Your task to perform on an android device: Go to calendar. Show me events next week Image 0: 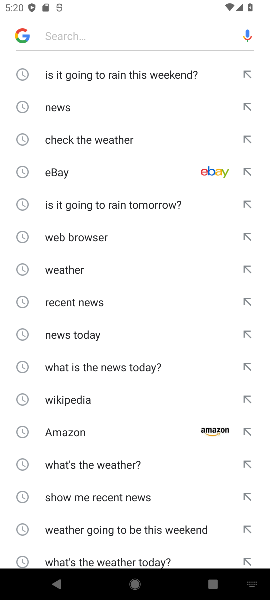
Step 0: press home button
Your task to perform on an android device: Go to calendar. Show me events next week Image 1: 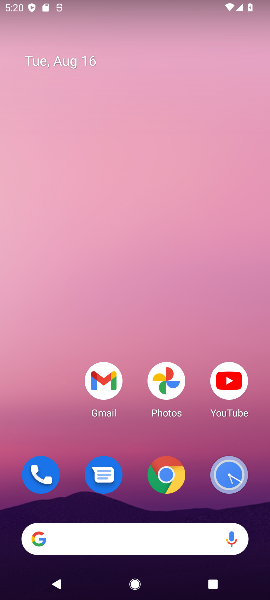
Step 1: drag from (262, 536) to (86, 57)
Your task to perform on an android device: Go to calendar. Show me events next week Image 2: 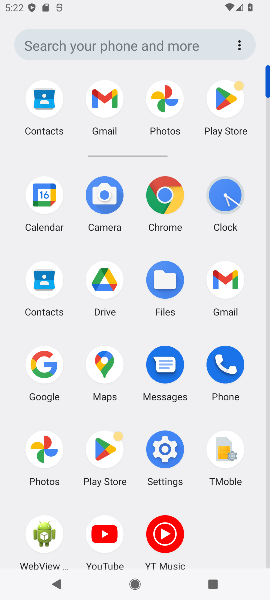
Step 2: click (40, 198)
Your task to perform on an android device: Go to calendar. Show me events next week Image 3: 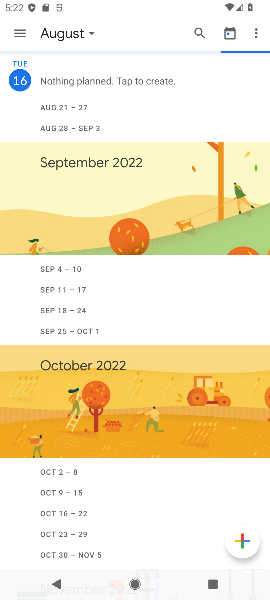
Step 3: task complete